Your task to perform on an android device: Open the phone app and click the voicemail tab. Image 0: 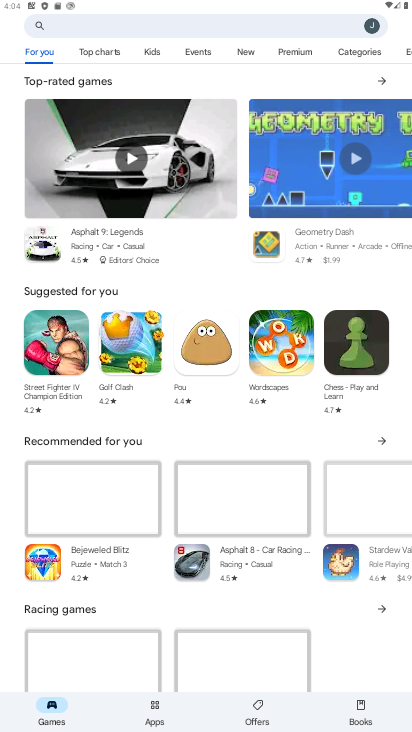
Step 0: press home button
Your task to perform on an android device: Open the phone app and click the voicemail tab. Image 1: 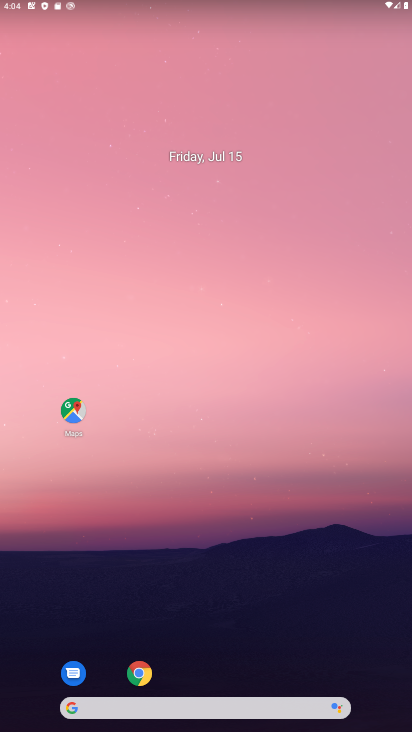
Step 1: drag from (228, 656) to (232, 364)
Your task to perform on an android device: Open the phone app and click the voicemail tab. Image 2: 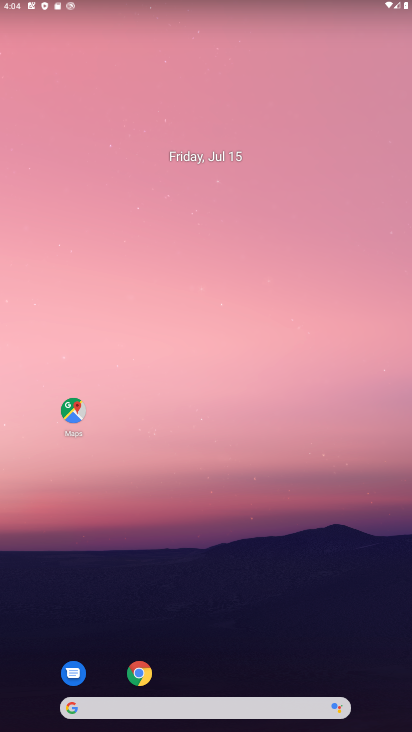
Step 2: drag from (224, 614) to (279, 177)
Your task to perform on an android device: Open the phone app and click the voicemail tab. Image 3: 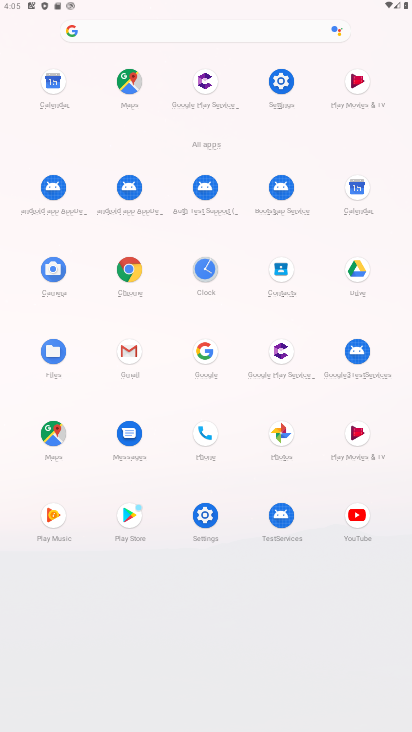
Step 3: click (203, 433)
Your task to perform on an android device: Open the phone app and click the voicemail tab. Image 4: 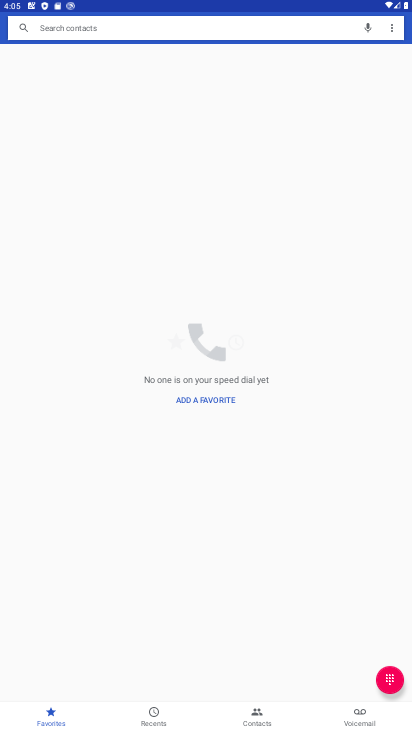
Step 4: click (376, 716)
Your task to perform on an android device: Open the phone app and click the voicemail tab. Image 5: 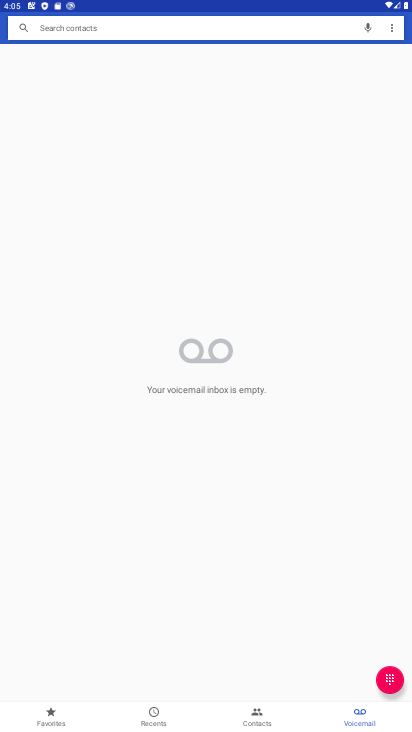
Step 5: task complete